Your task to perform on an android device: toggle pop-ups in chrome Image 0: 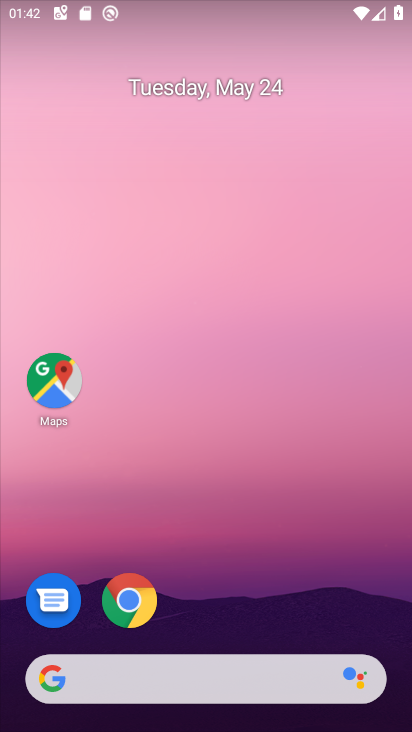
Step 0: drag from (296, 564) to (292, 294)
Your task to perform on an android device: toggle pop-ups in chrome Image 1: 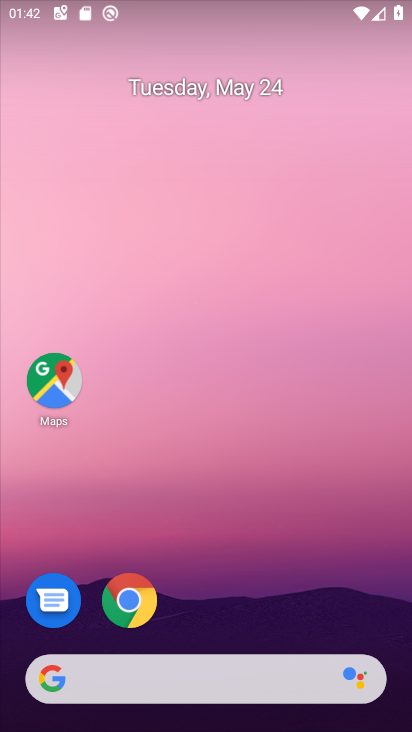
Step 1: drag from (321, 599) to (317, 221)
Your task to perform on an android device: toggle pop-ups in chrome Image 2: 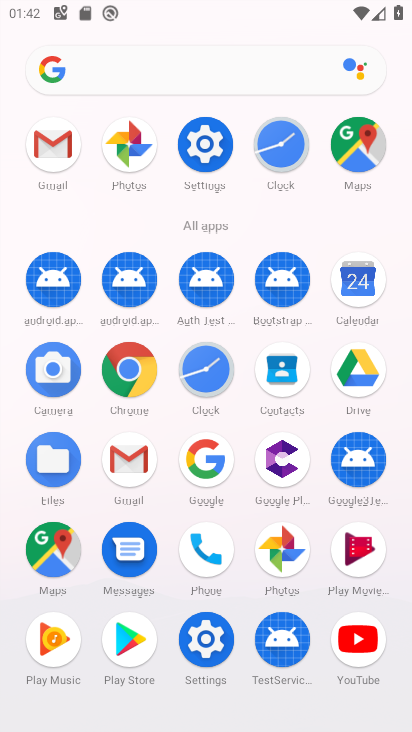
Step 2: click (116, 386)
Your task to perform on an android device: toggle pop-ups in chrome Image 3: 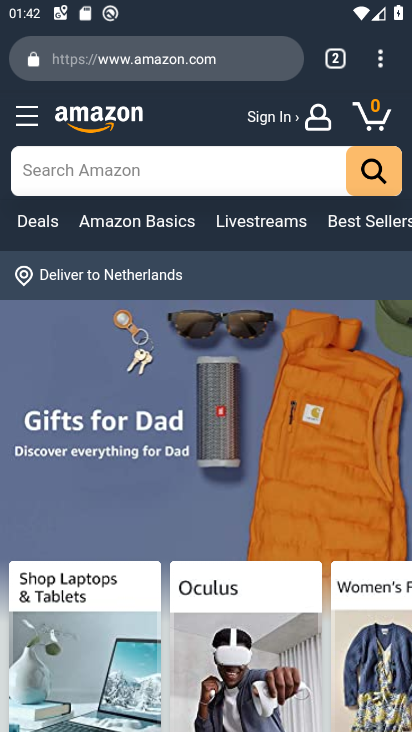
Step 3: click (383, 61)
Your task to perform on an android device: toggle pop-ups in chrome Image 4: 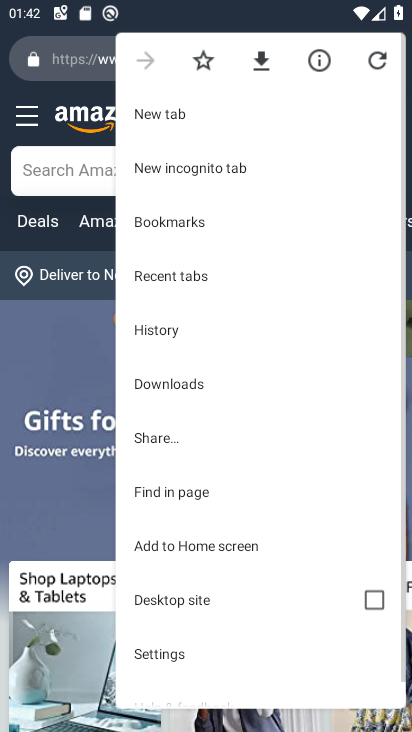
Step 4: drag from (327, 488) to (325, 162)
Your task to perform on an android device: toggle pop-ups in chrome Image 5: 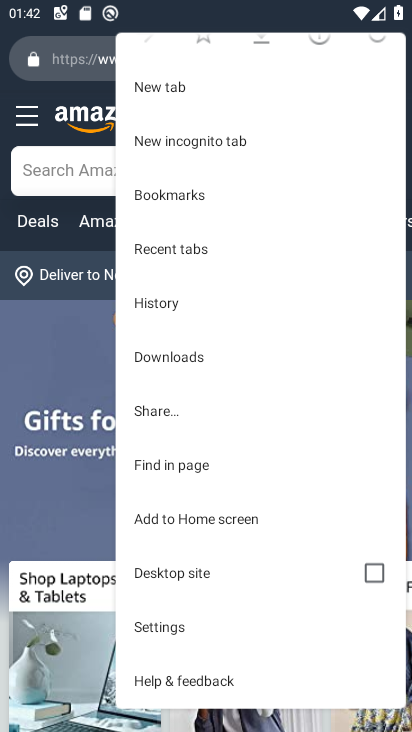
Step 5: click (216, 629)
Your task to perform on an android device: toggle pop-ups in chrome Image 6: 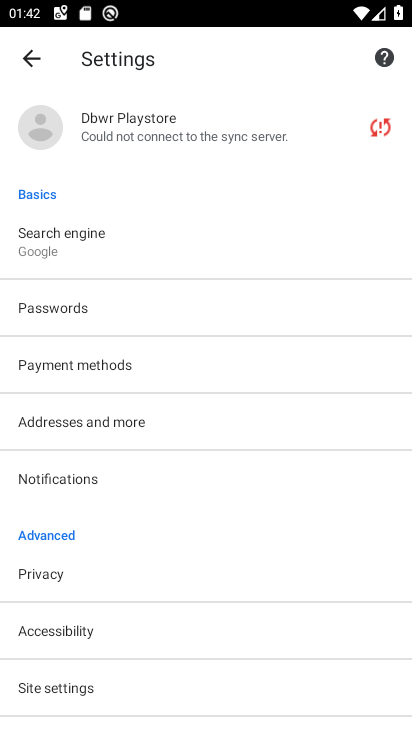
Step 6: click (95, 683)
Your task to perform on an android device: toggle pop-ups in chrome Image 7: 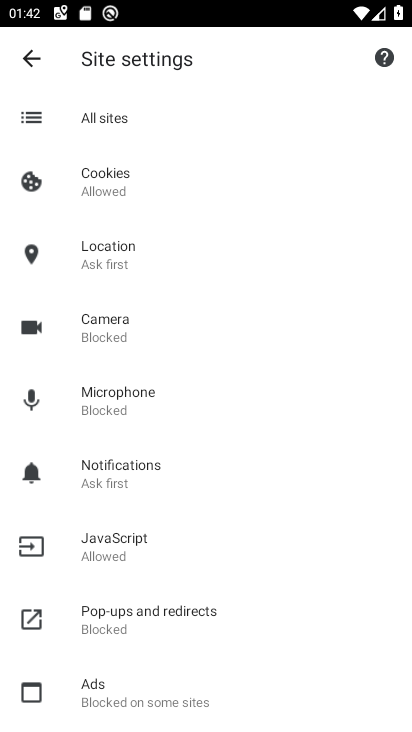
Step 7: click (102, 601)
Your task to perform on an android device: toggle pop-ups in chrome Image 8: 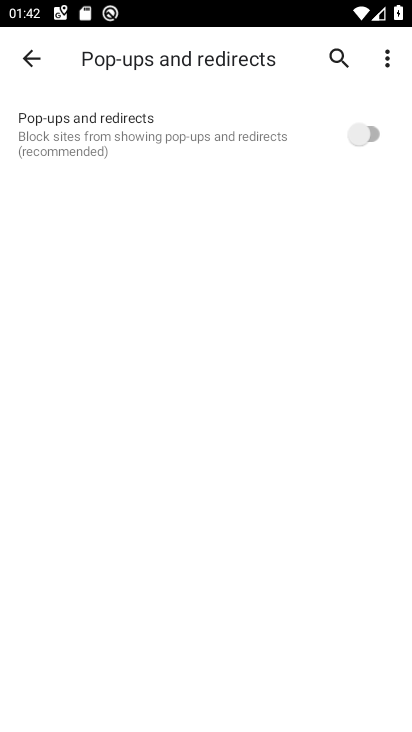
Step 8: click (375, 134)
Your task to perform on an android device: toggle pop-ups in chrome Image 9: 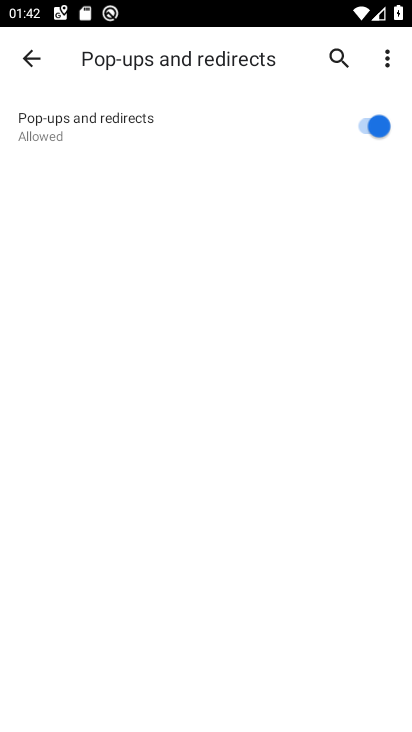
Step 9: task complete